Your task to perform on an android device: Go to wifi settings Image 0: 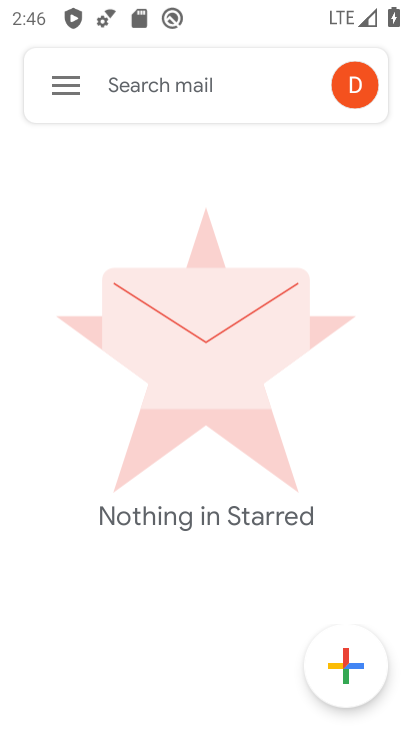
Step 0: press home button
Your task to perform on an android device: Go to wifi settings Image 1: 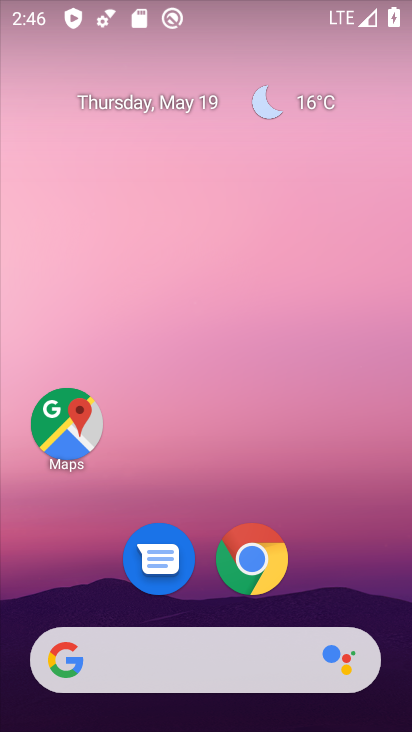
Step 1: drag from (198, 540) to (184, 241)
Your task to perform on an android device: Go to wifi settings Image 2: 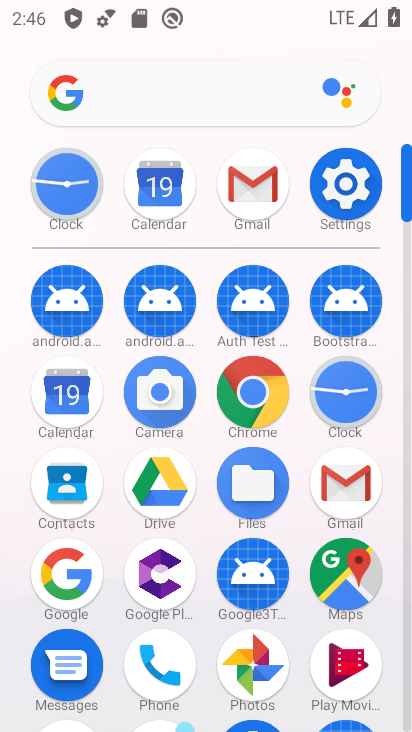
Step 2: click (331, 183)
Your task to perform on an android device: Go to wifi settings Image 3: 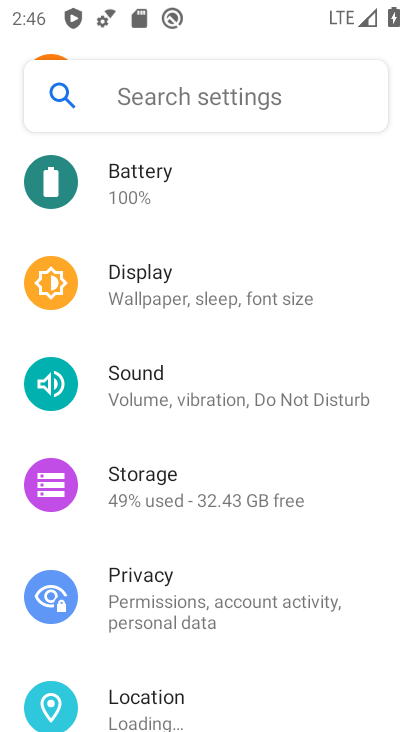
Step 3: drag from (141, 182) to (211, 594)
Your task to perform on an android device: Go to wifi settings Image 4: 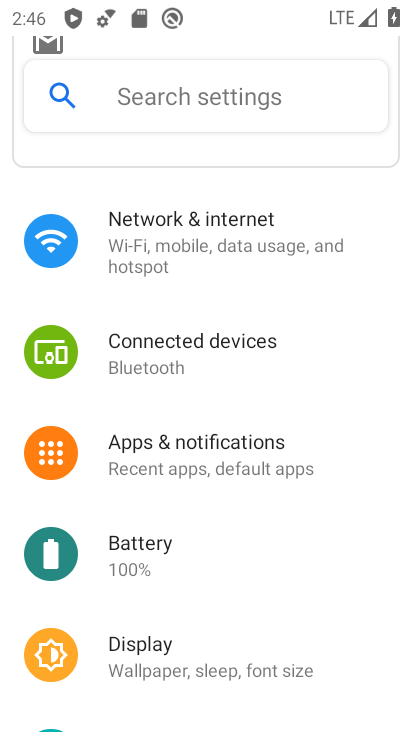
Step 4: click (186, 224)
Your task to perform on an android device: Go to wifi settings Image 5: 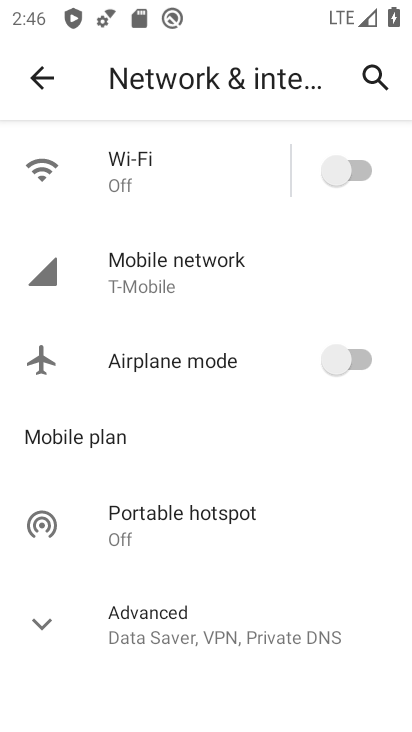
Step 5: click (126, 177)
Your task to perform on an android device: Go to wifi settings Image 6: 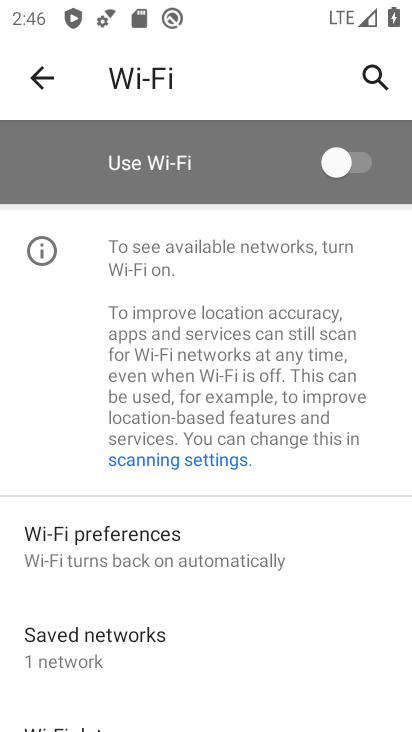
Step 6: task complete